Your task to perform on an android device: uninstall "Reddit" Image 0: 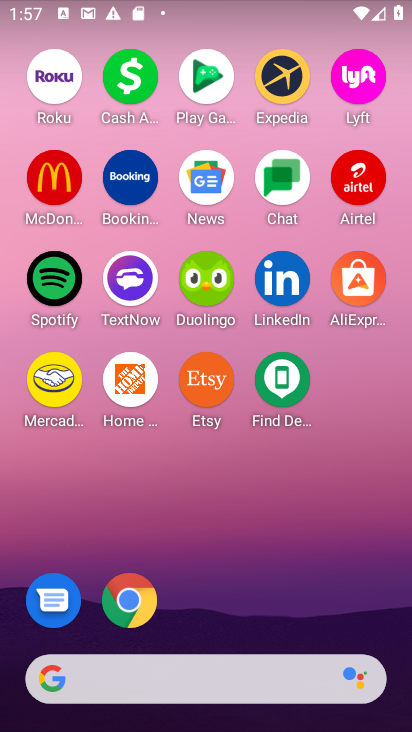
Step 0: drag from (295, 619) to (291, 114)
Your task to perform on an android device: uninstall "Reddit" Image 1: 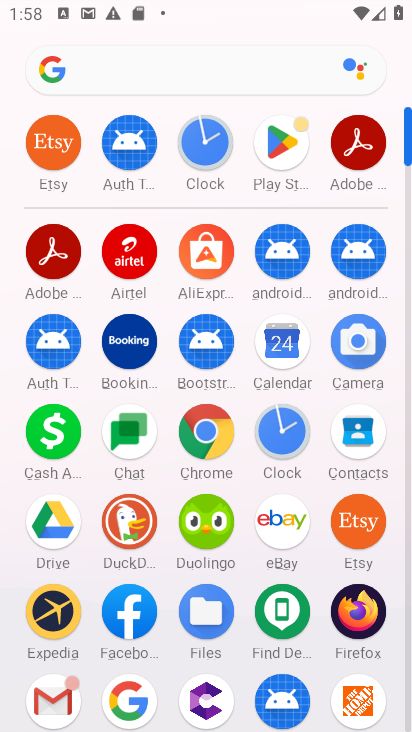
Step 1: click (291, 151)
Your task to perform on an android device: uninstall "Reddit" Image 2: 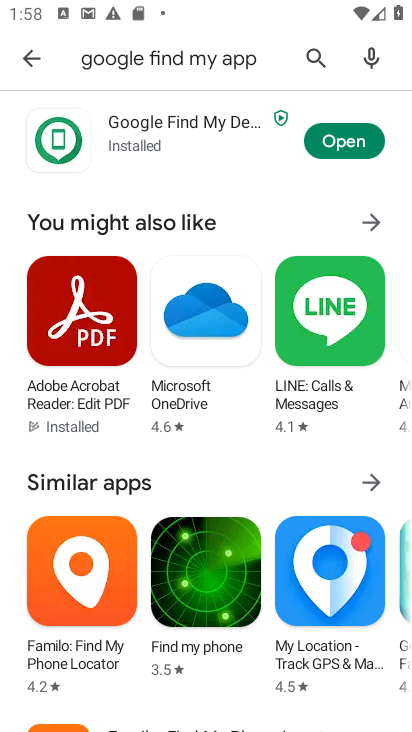
Step 2: click (311, 46)
Your task to perform on an android device: uninstall "Reddit" Image 3: 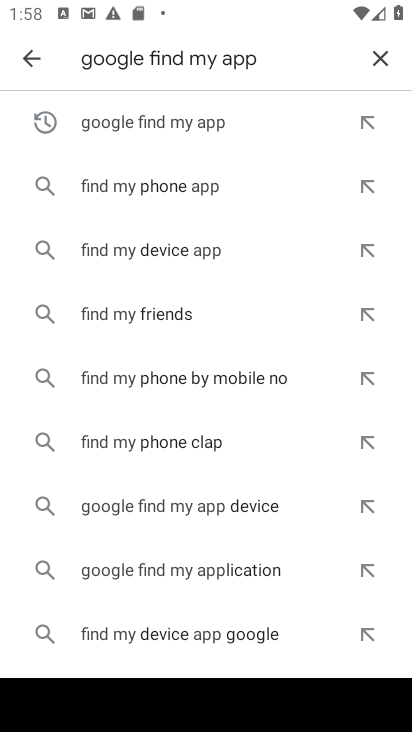
Step 3: click (380, 57)
Your task to perform on an android device: uninstall "Reddit" Image 4: 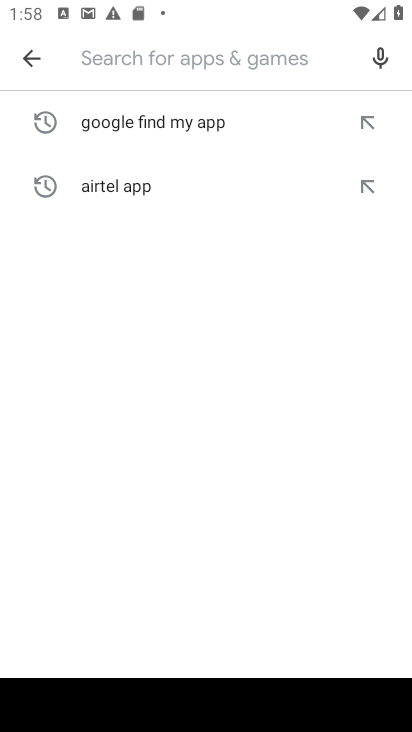
Step 4: type "reddit"
Your task to perform on an android device: uninstall "Reddit" Image 5: 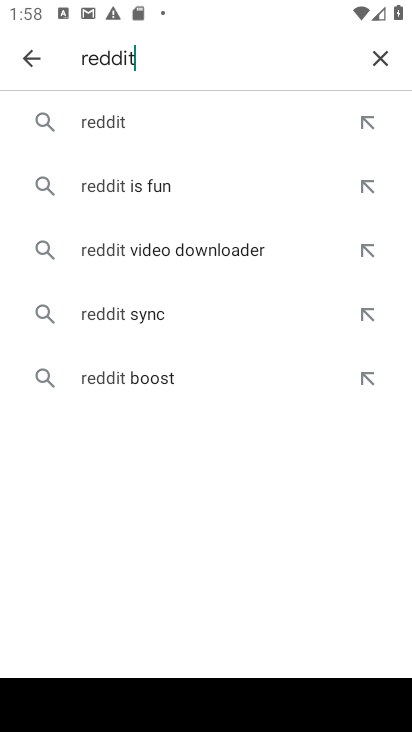
Step 5: click (184, 132)
Your task to perform on an android device: uninstall "Reddit" Image 6: 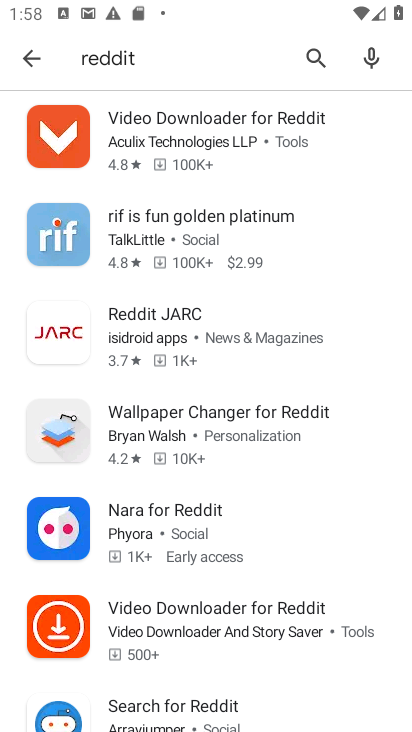
Step 6: task complete